Your task to perform on an android device: Open Google Maps Image 0: 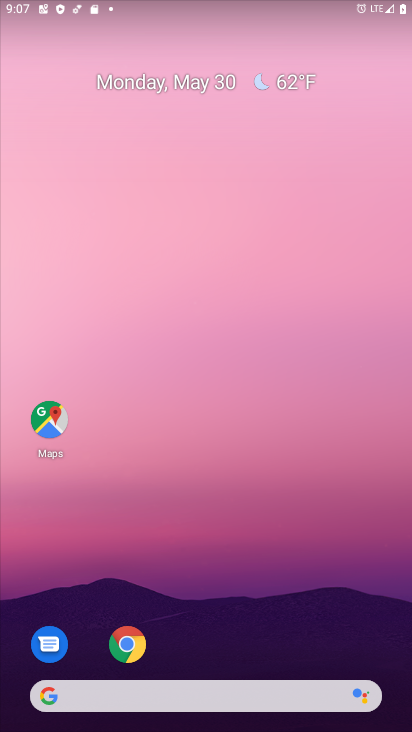
Step 0: click (49, 418)
Your task to perform on an android device: Open Google Maps Image 1: 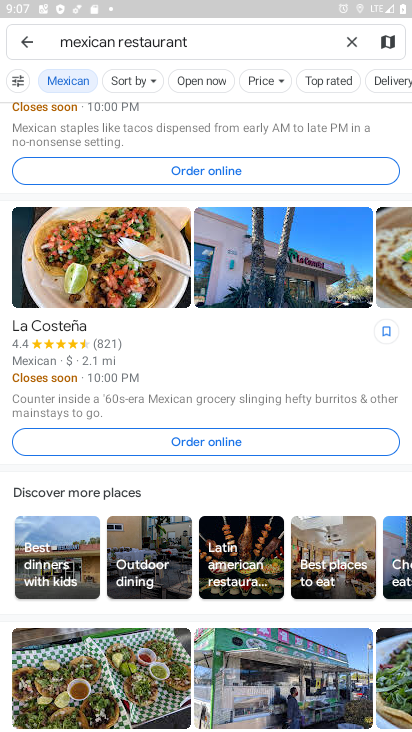
Step 1: click (351, 39)
Your task to perform on an android device: Open Google Maps Image 2: 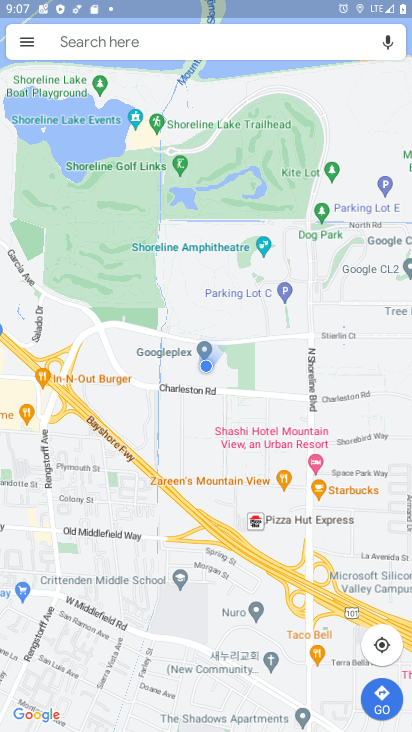
Step 2: task complete